Your task to perform on an android device: Go to privacy settings Image 0: 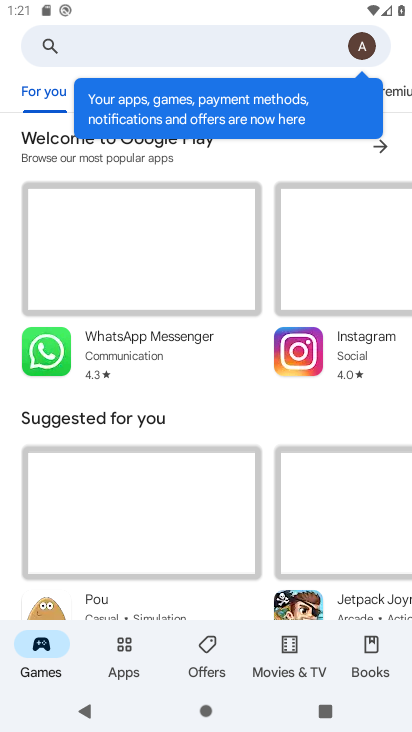
Step 0: press home button
Your task to perform on an android device: Go to privacy settings Image 1: 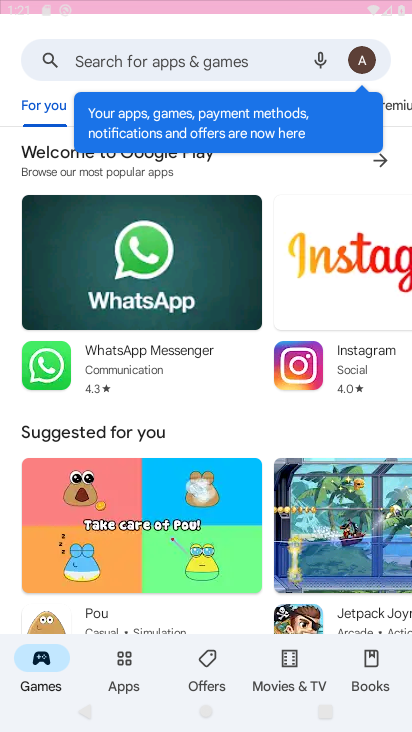
Step 1: drag from (253, 534) to (193, 120)
Your task to perform on an android device: Go to privacy settings Image 2: 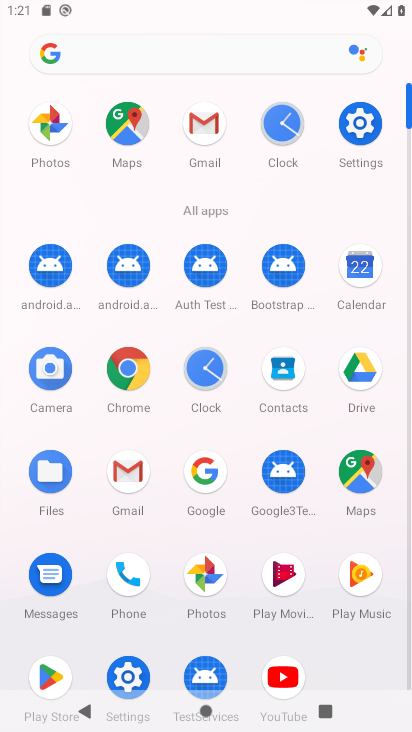
Step 2: click (344, 123)
Your task to perform on an android device: Go to privacy settings Image 3: 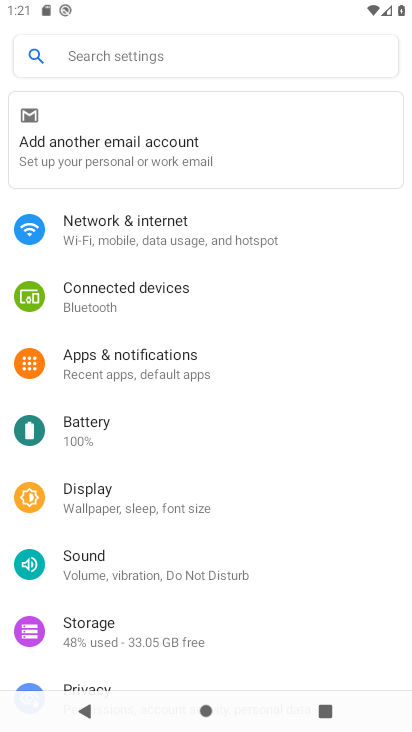
Step 3: drag from (103, 528) to (109, 316)
Your task to perform on an android device: Go to privacy settings Image 4: 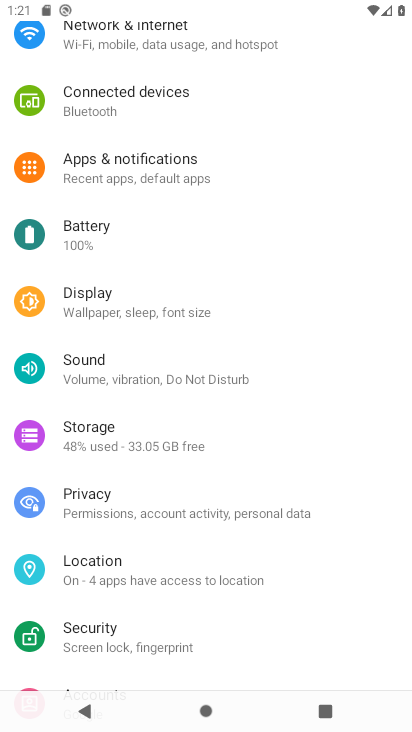
Step 4: click (76, 191)
Your task to perform on an android device: Go to privacy settings Image 5: 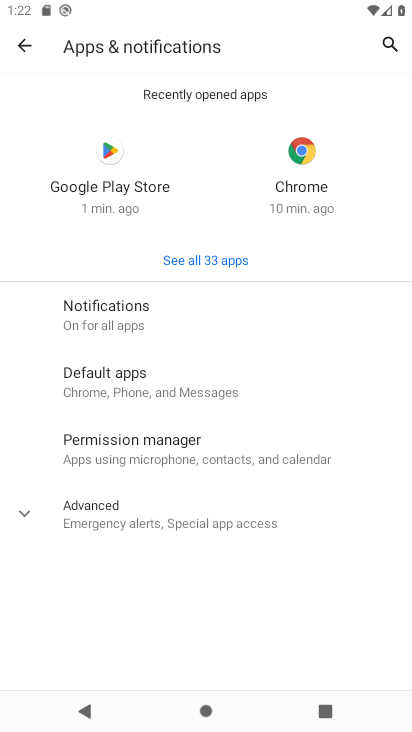
Step 5: click (104, 337)
Your task to perform on an android device: Go to privacy settings Image 6: 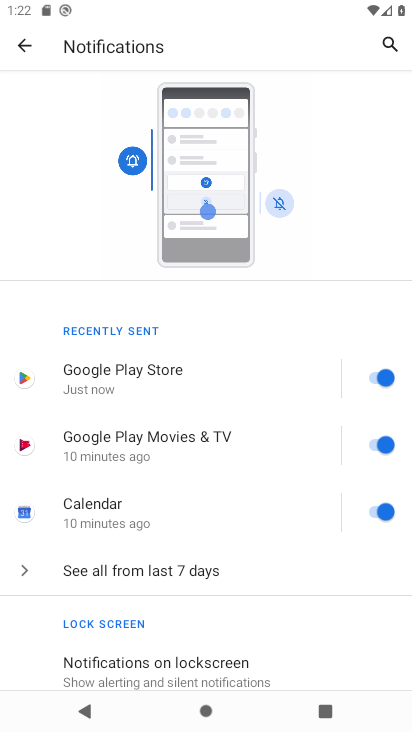
Step 6: drag from (171, 587) to (169, 390)
Your task to perform on an android device: Go to privacy settings Image 7: 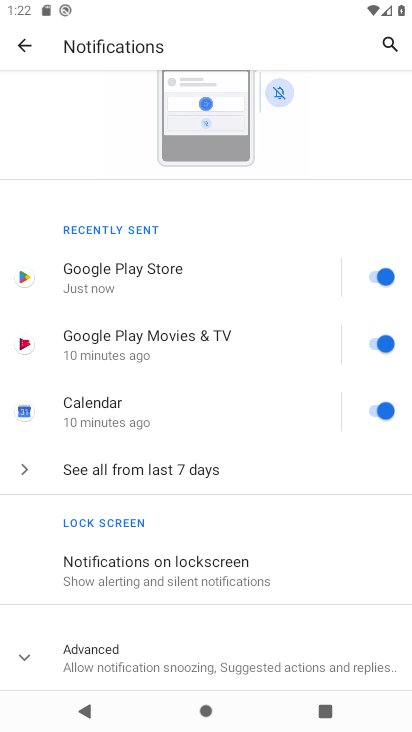
Step 7: press back button
Your task to perform on an android device: Go to privacy settings Image 8: 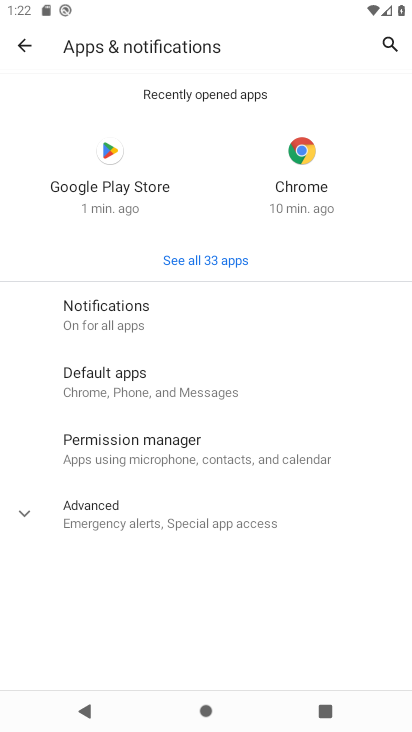
Step 8: press back button
Your task to perform on an android device: Go to privacy settings Image 9: 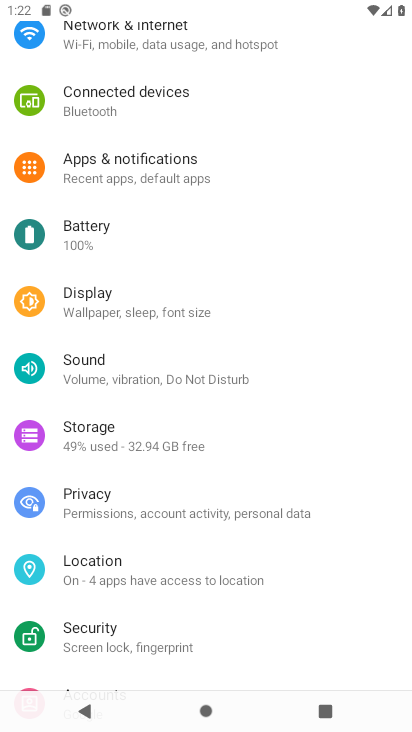
Step 9: click (113, 494)
Your task to perform on an android device: Go to privacy settings Image 10: 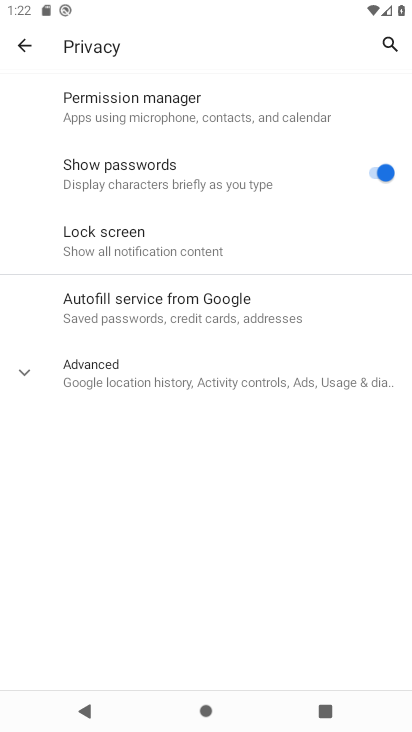
Step 10: task complete